Your task to perform on an android device: delete browsing data in the chrome app Image 0: 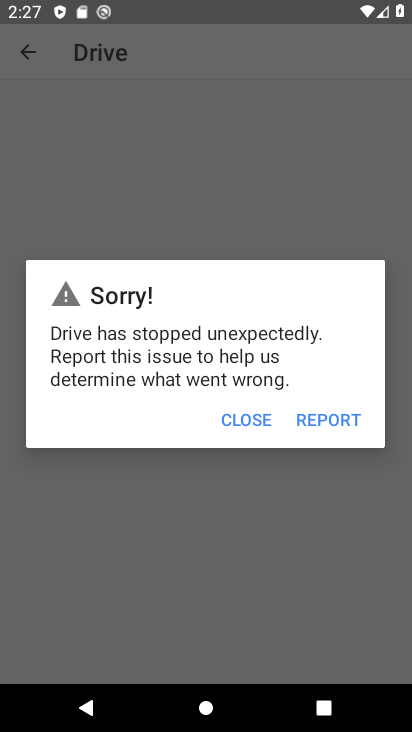
Step 0: press home button
Your task to perform on an android device: delete browsing data in the chrome app Image 1: 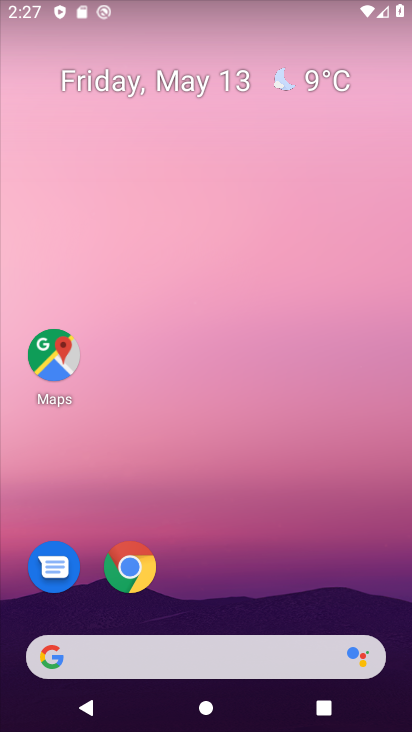
Step 1: click (130, 576)
Your task to perform on an android device: delete browsing data in the chrome app Image 2: 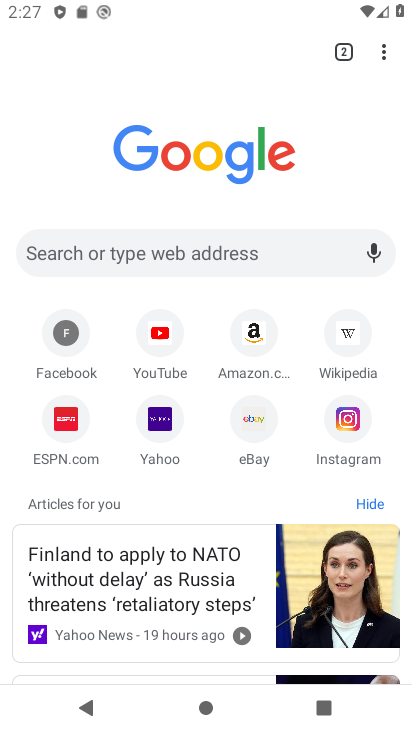
Step 2: click (383, 51)
Your task to perform on an android device: delete browsing data in the chrome app Image 3: 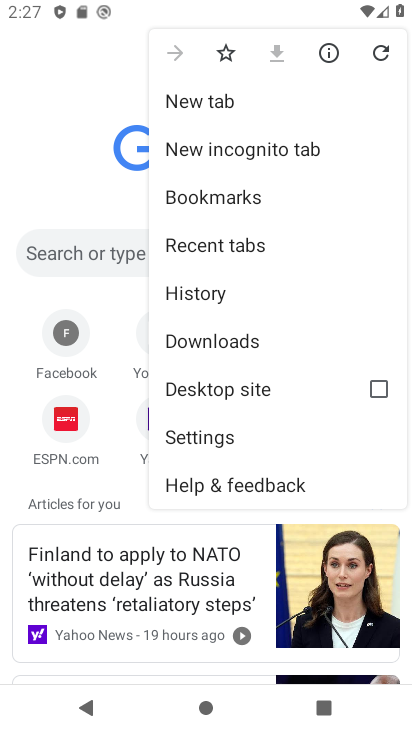
Step 3: click (186, 439)
Your task to perform on an android device: delete browsing data in the chrome app Image 4: 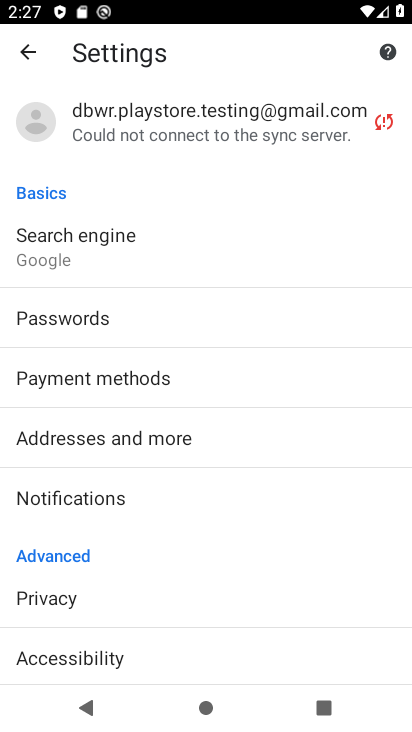
Step 4: drag from (196, 541) to (226, 198)
Your task to perform on an android device: delete browsing data in the chrome app Image 5: 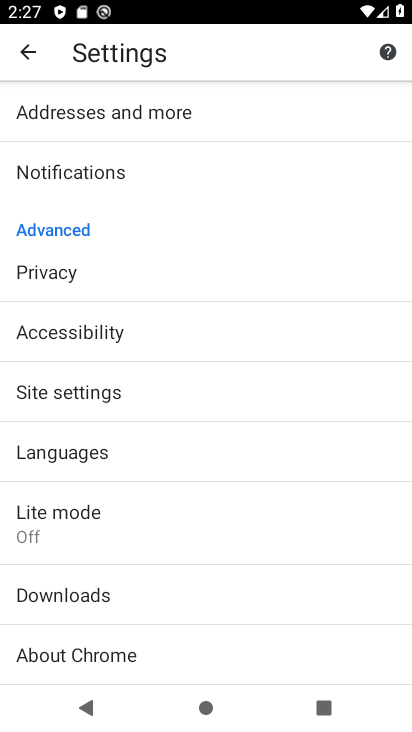
Step 5: click (49, 269)
Your task to perform on an android device: delete browsing data in the chrome app Image 6: 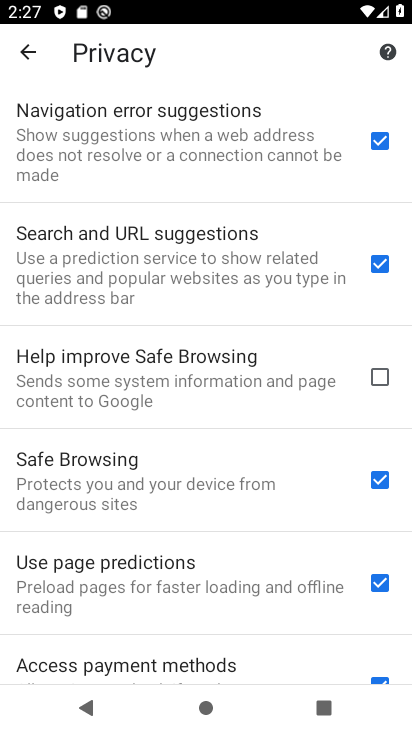
Step 6: drag from (180, 524) to (186, 159)
Your task to perform on an android device: delete browsing data in the chrome app Image 7: 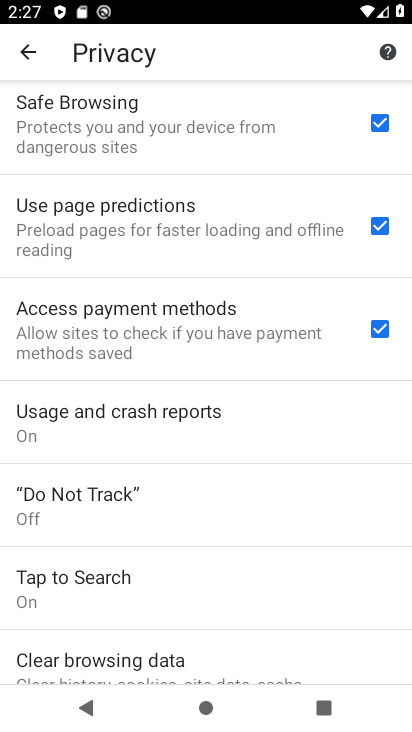
Step 7: click (114, 661)
Your task to perform on an android device: delete browsing data in the chrome app Image 8: 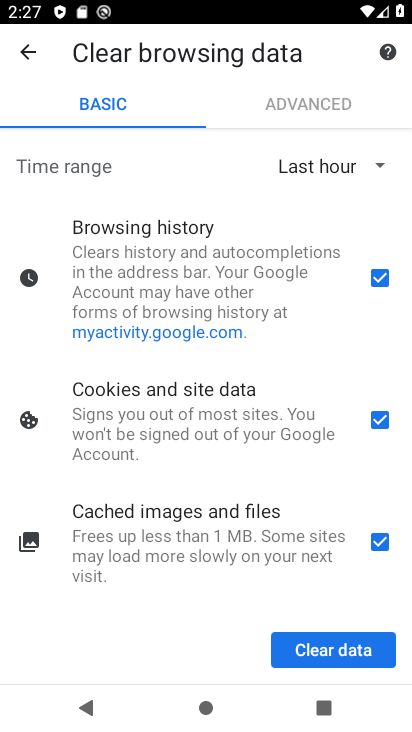
Step 8: click (373, 417)
Your task to perform on an android device: delete browsing data in the chrome app Image 9: 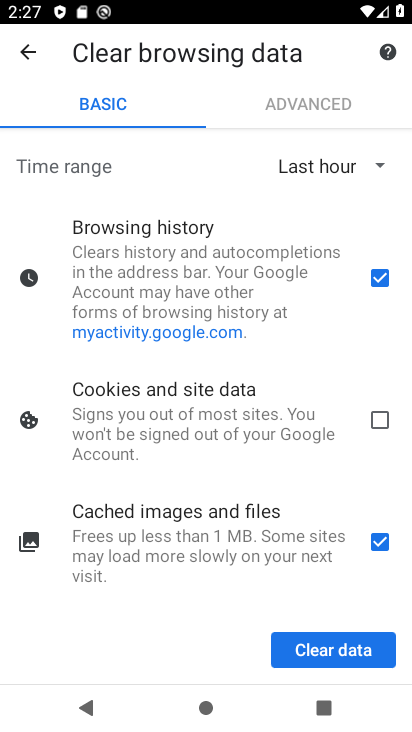
Step 9: click (368, 542)
Your task to perform on an android device: delete browsing data in the chrome app Image 10: 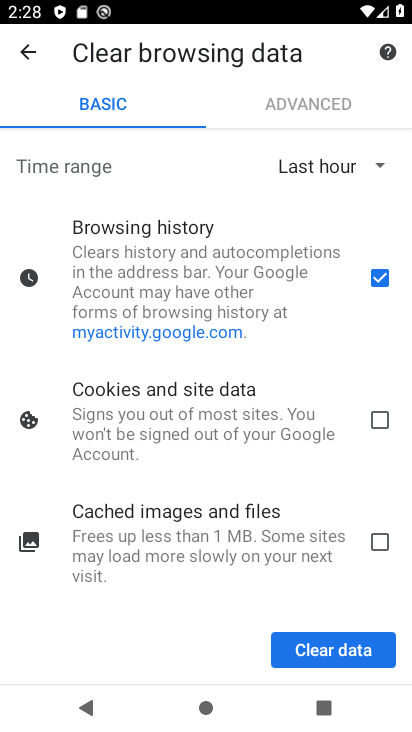
Step 10: click (338, 645)
Your task to perform on an android device: delete browsing data in the chrome app Image 11: 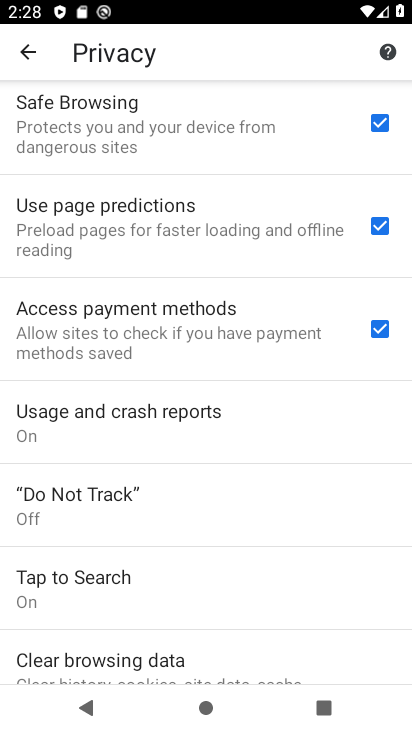
Step 11: task complete